Your task to perform on an android device: turn off data saver in the chrome app Image 0: 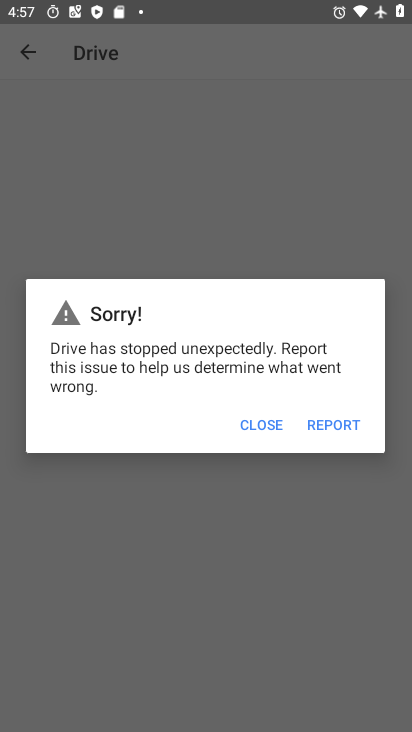
Step 0: press back button
Your task to perform on an android device: turn off data saver in the chrome app Image 1: 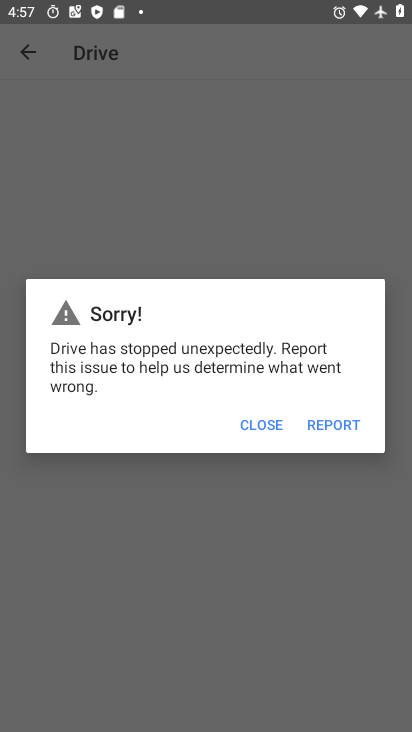
Step 1: press home button
Your task to perform on an android device: turn off data saver in the chrome app Image 2: 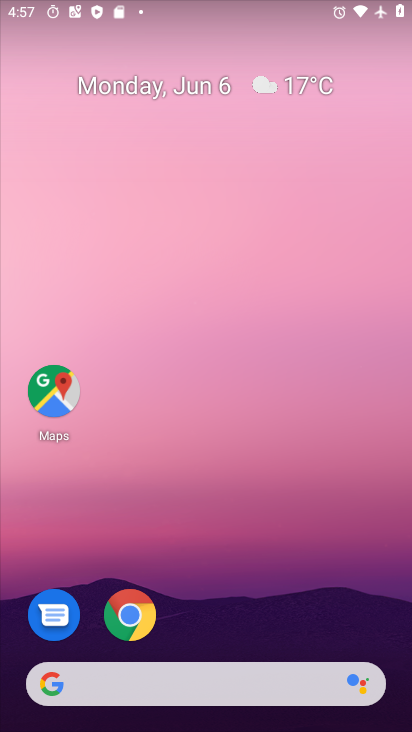
Step 2: drag from (213, 550) to (194, 58)
Your task to perform on an android device: turn off data saver in the chrome app Image 3: 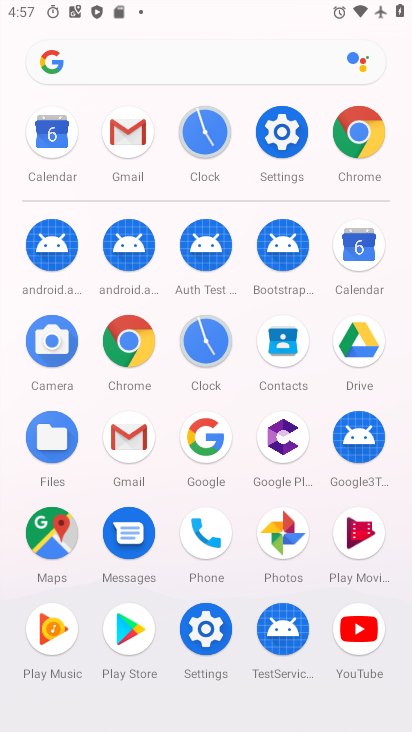
Step 3: drag from (13, 486) to (12, 144)
Your task to perform on an android device: turn off data saver in the chrome app Image 4: 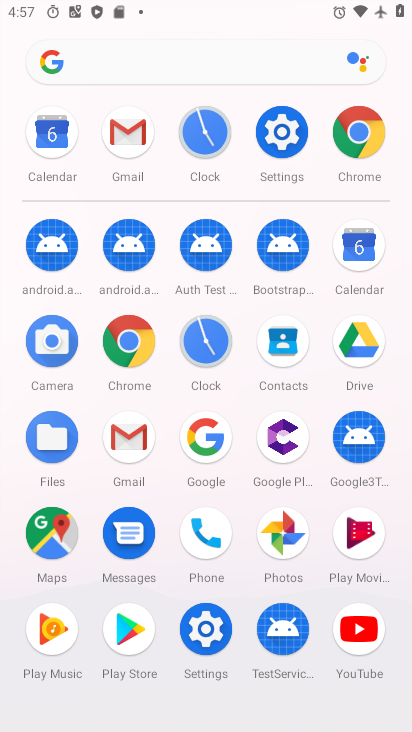
Step 4: drag from (21, 513) to (36, 227)
Your task to perform on an android device: turn off data saver in the chrome app Image 5: 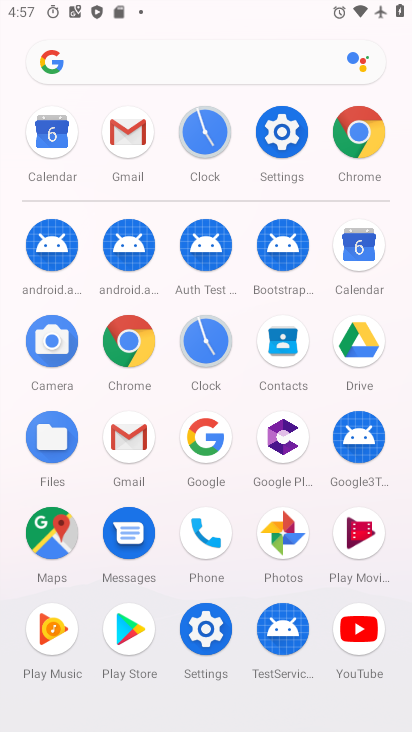
Step 5: click (123, 328)
Your task to perform on an android device: turn off data saver in the chrome app Image 6: 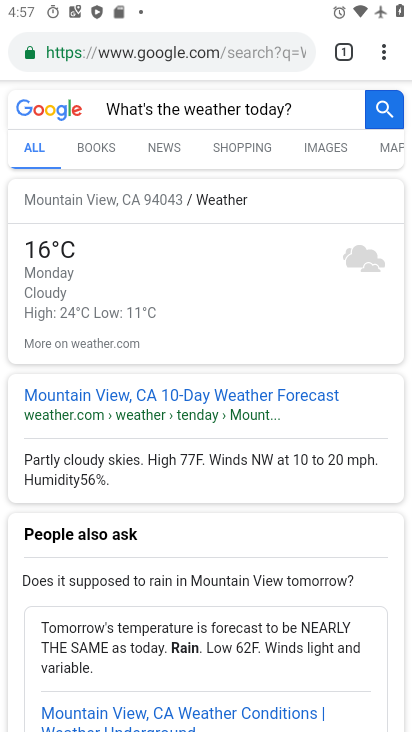
Step 6: drag from (380, 56) to (236, 579)
Your task to perform on an android device: turn off data saver in the chrome app Image 7: 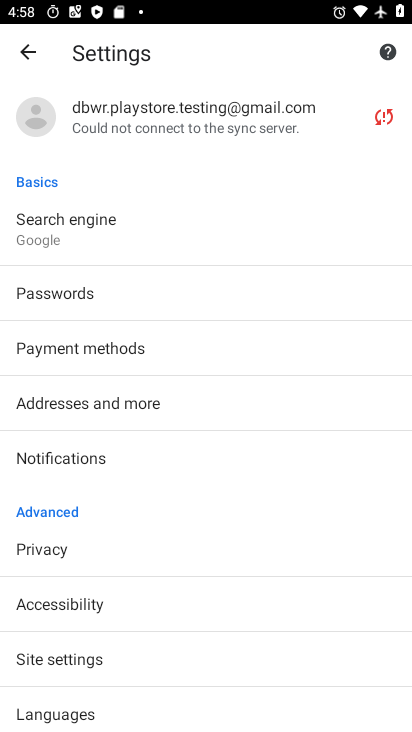
Step 7: drag from (192, 616) to (195, 234)
Your task to perform on an android device: turn off data saver in the chrome app Image 8: 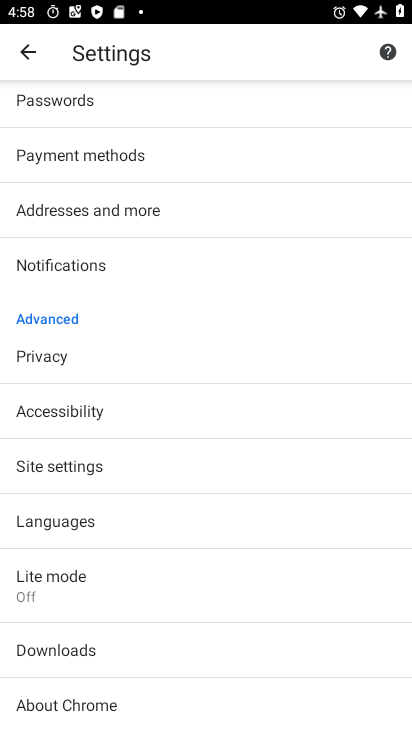
Step 8: click (130, 582)
Your task to perform on an android device: turn off data saver in the chrome app Image 9: 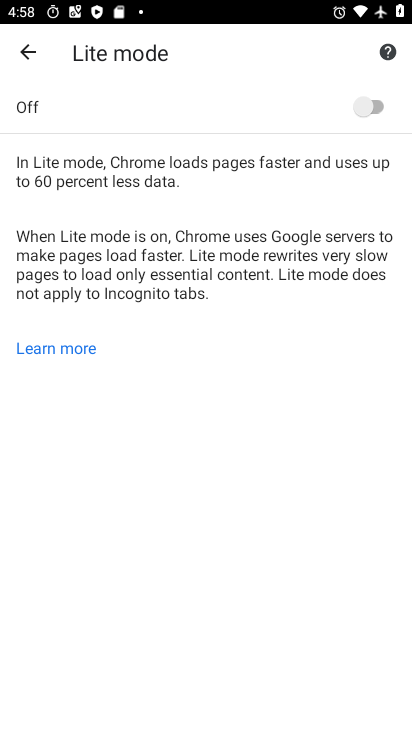
Step 9: task complete